Your task to perform on an android device: toggle notification dots Image 0: 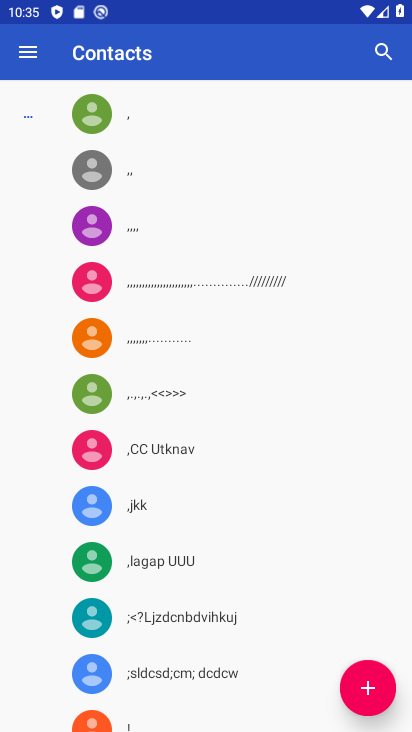
Step 0: press home button
Your task to perform on an android device: toggle notification dots Image 1: 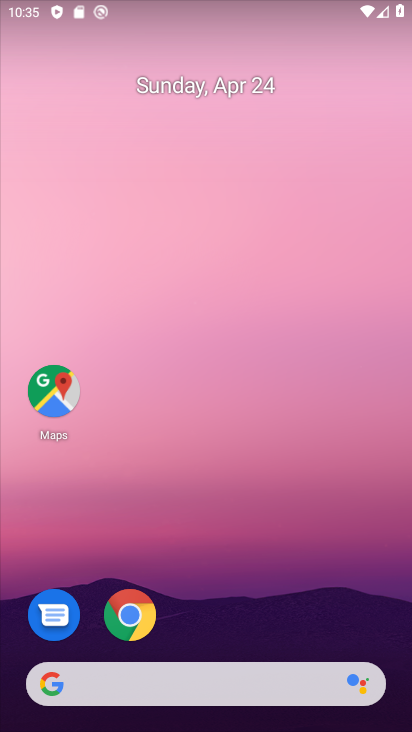
Step 1: drag from (235, 648) to (245, 62)
Your task to perform on an android device: toggle notification dots Image 2: 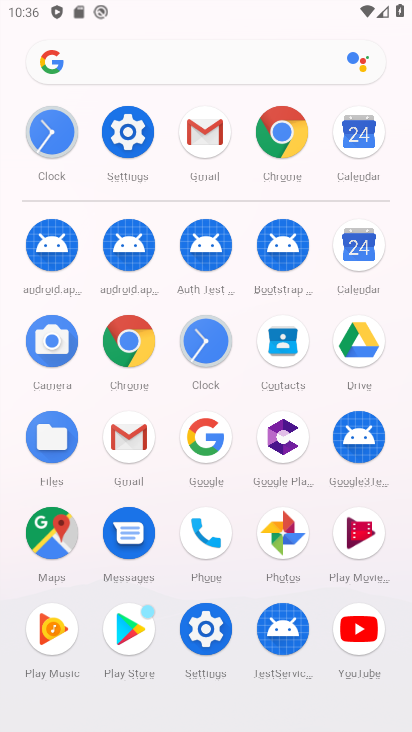
Step 2: click (201, 622)
Your task to perform on an android device: toggle notification dots Image 3: 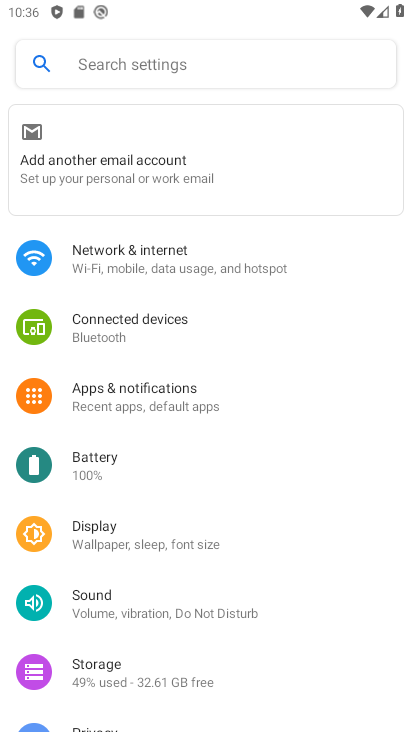
Step 3: click (212, 386)
Your task to perform on an android device: toggle notification dots Image 4: 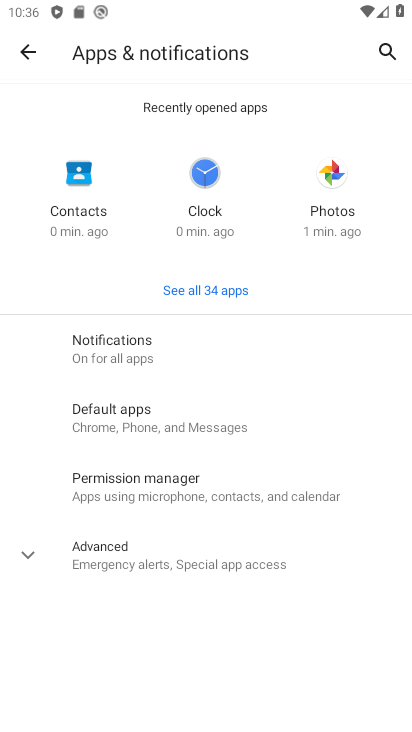
Step 4: click (168, 341)
Your task to perform on an android device: toggle notification dots Image 5: 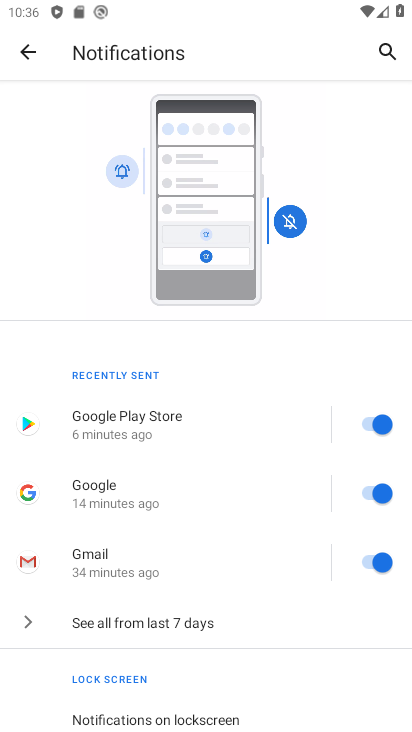
Step 5: drag from (213, 658) to (219, 301)
Your task to perform on an android device: toggle notification dots Image 6: 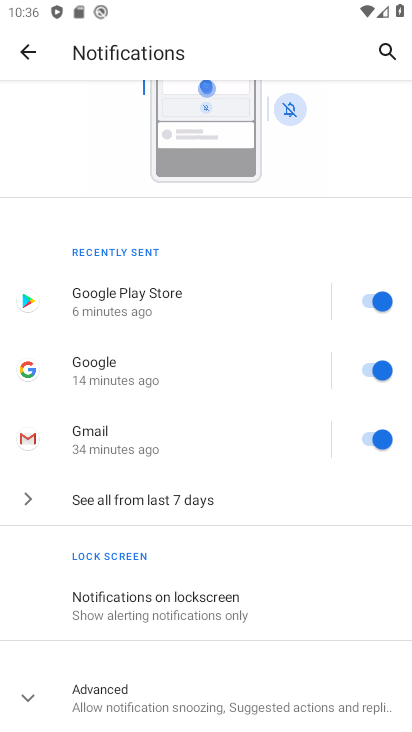
Step 6: click (26, 695)
Your task to perform on an android device: toggle notification dots Image 7: 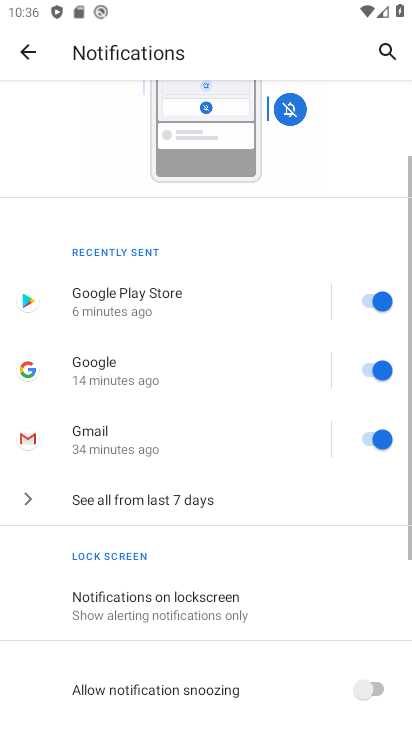
Step 7: task complete